Your task to perform on an android device: change alarm snooze length Image 0: 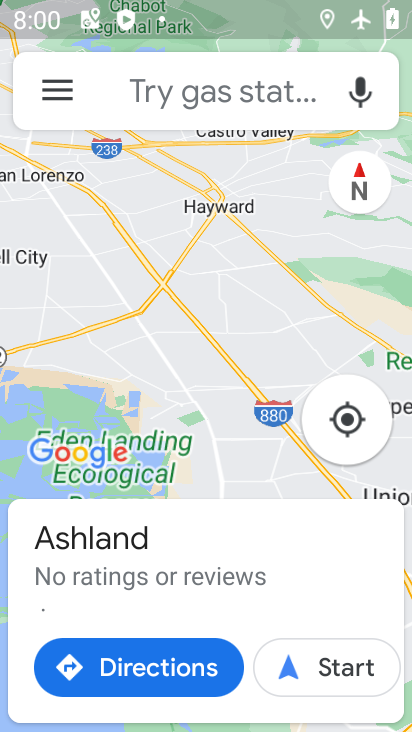
Step 0: press home button
Your task to perform on an android device: change alarm snooze length Image 1: 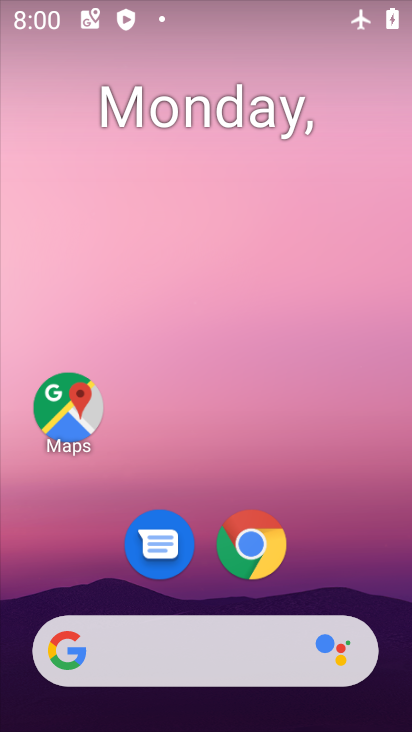
Step 1: drag from (364, 550) to (195, 48)
Your task to perform on an android device: change alarm snooze length Image 2: 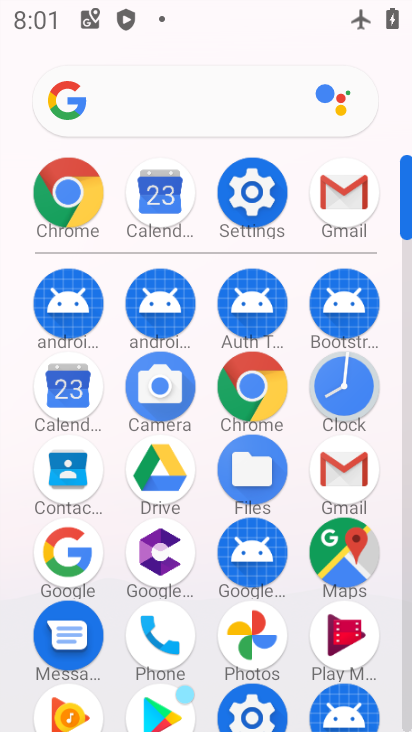
Step 2: click (345, 378)
Your task to perform on an android device: change alarm snooze length Image 3: 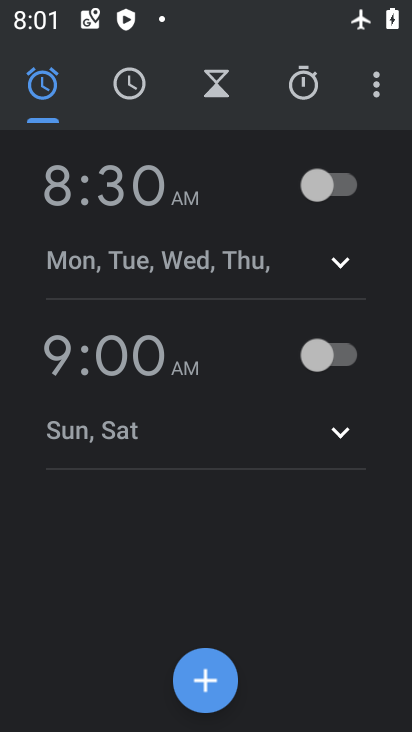
Step 3: click (371, 79)
Your task to perform on an android device: change alarm snooze length Image 4: 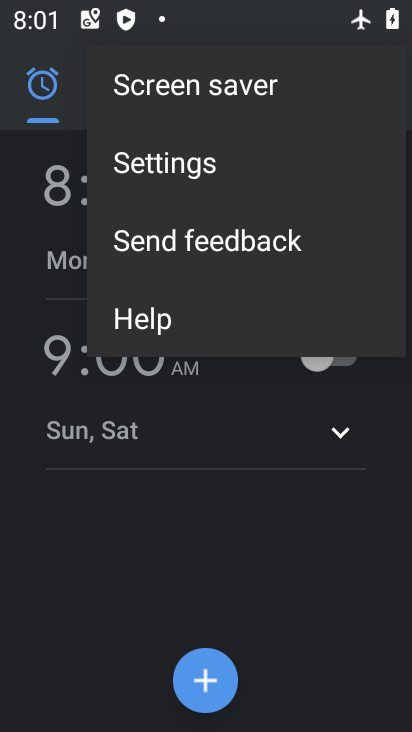
Step 4: click (183, 175)
Your task to perform on an android device: change alarm snooze length Image 5: 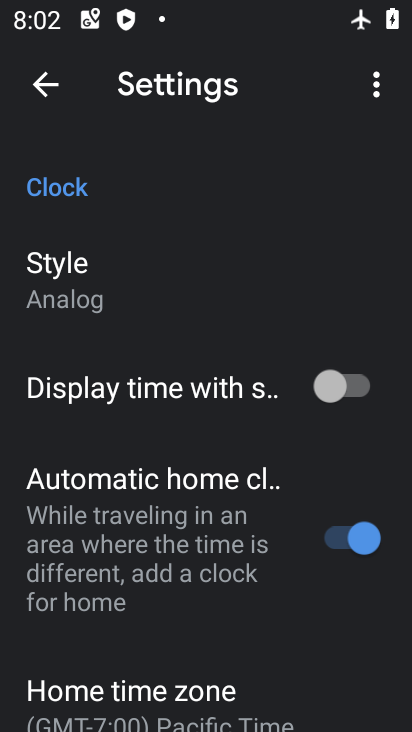
Step 5: drag from (221, 430) to (216, 301)
Your task to perform on an android device: change alarm snooze length Image 6: 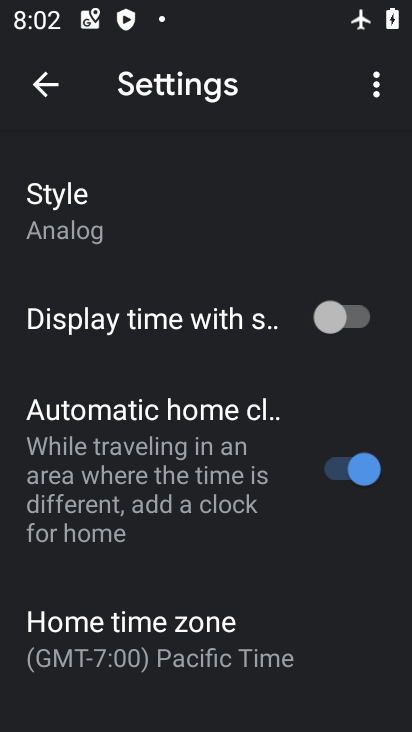
Step 6: drag from (210, 580) to (197, 249)
Your task to perform on an android device: change alarm snooze length Image 7: 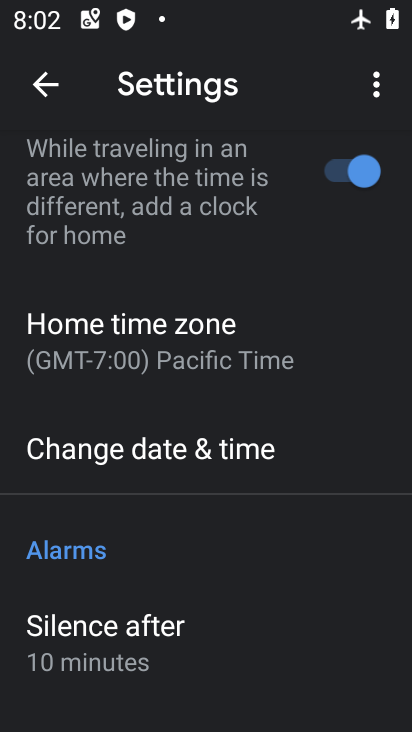
Step 7: drag from (195, 545) to (172, 219)
Your task to perform on an android device: change alarm snooze length Image 8: 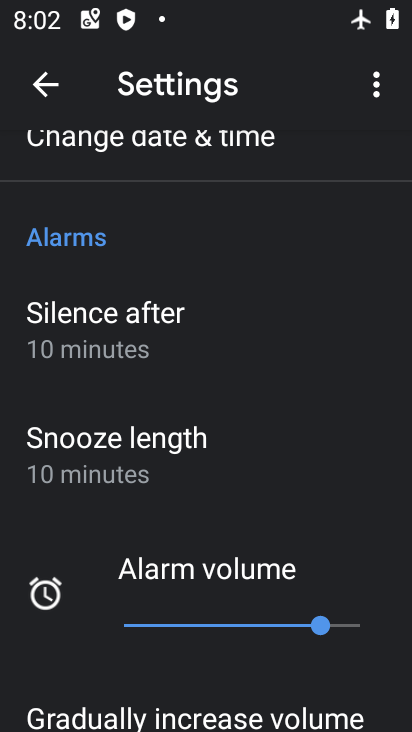
Step 8: click (131, 443)
Your task to perform on an android device: change alarm snooze length Image 9: 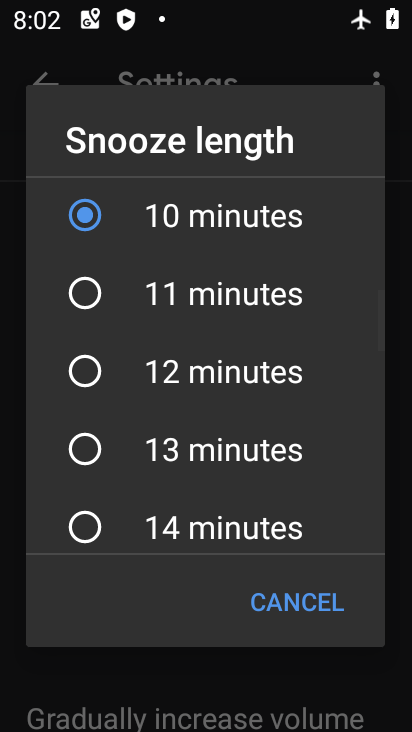
Step 9: click (83, 303)
Your task to perform on an android device: change alarm snooze length Image 10: 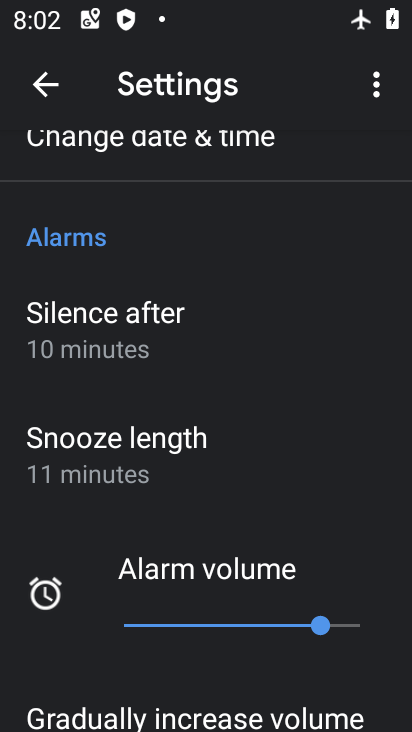
Step 10: task complete